Your task to perform on an android device: uninstall "Pluto TV - Live TV and Movies" Image 0: 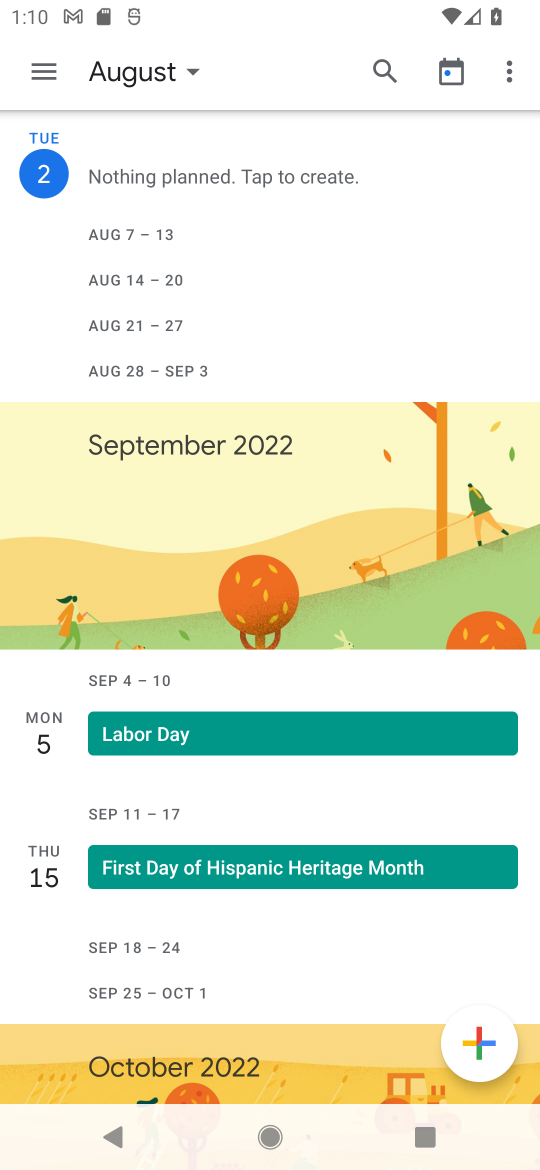
Step 0: press home button
Your task to perform on an android device: uninstall "Pluto TV - Live TV and Movies" Image 1: 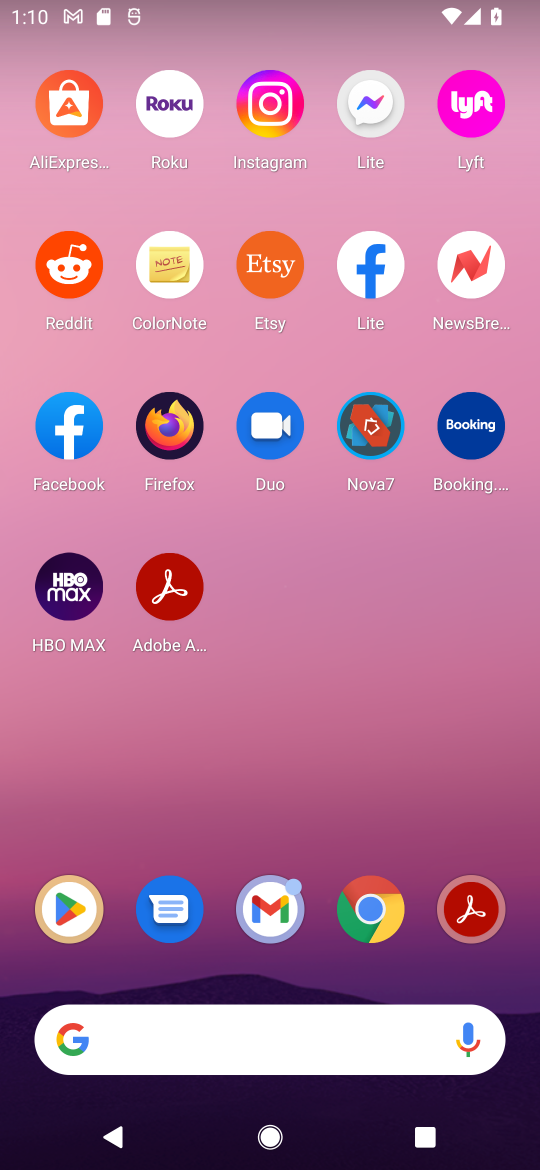
Step 1: click (68, 902)
Your task to perform on an android device: uninstall "Pluto TV - Live TV and Movies" Image 2: 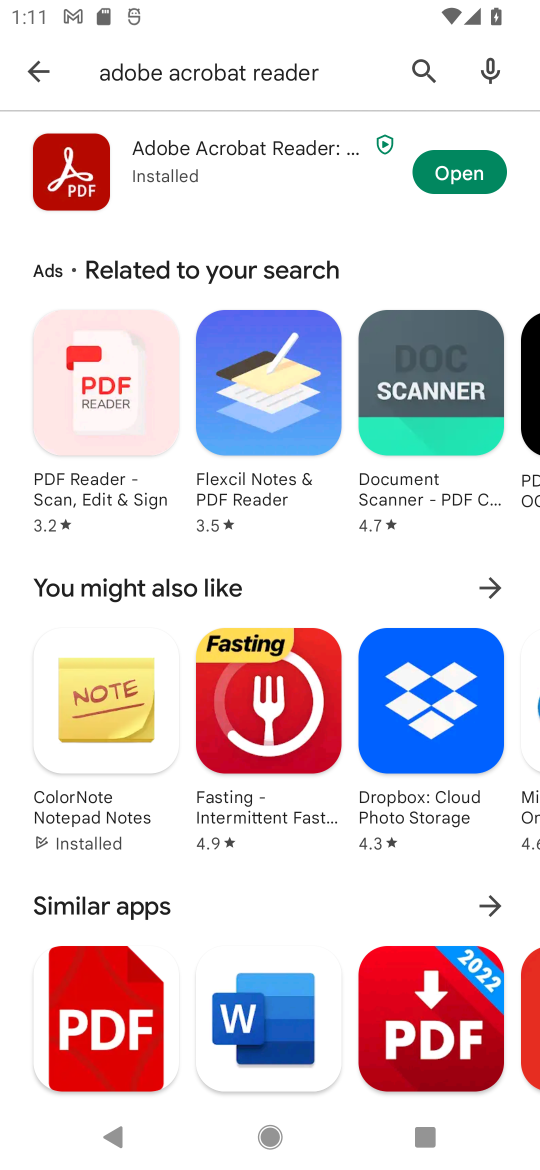
Step 2: click (419, 66)
Your task to perform on an android device: uninstall "Pluto TV - Live TV and Movies" Image 3: 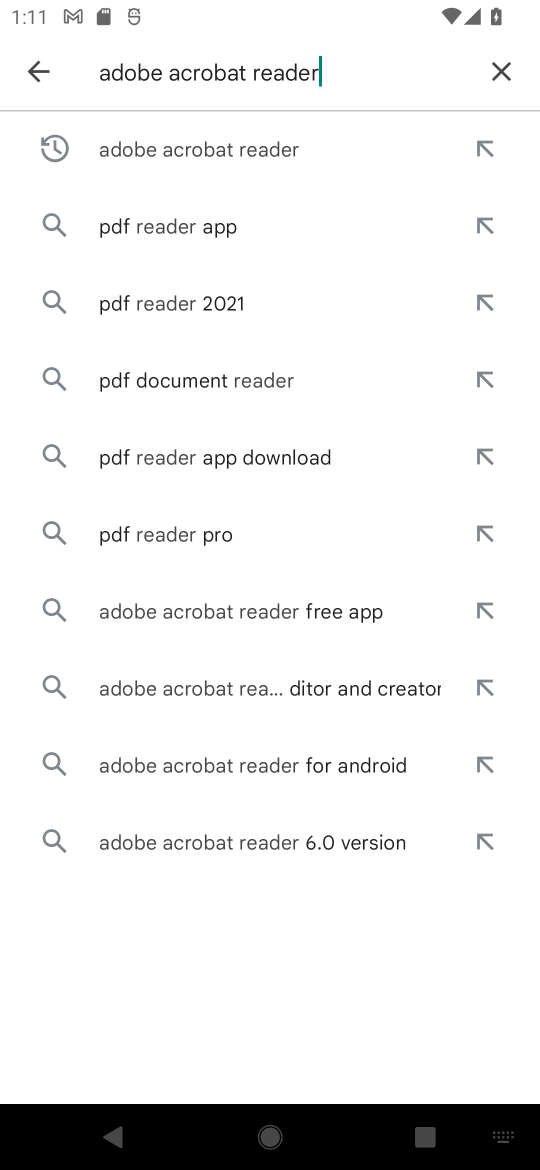
Step 3: click (497, 68)
Your task to perform on an android device: uninstall "Pluto TV - Live TV and Movies" Image 4: 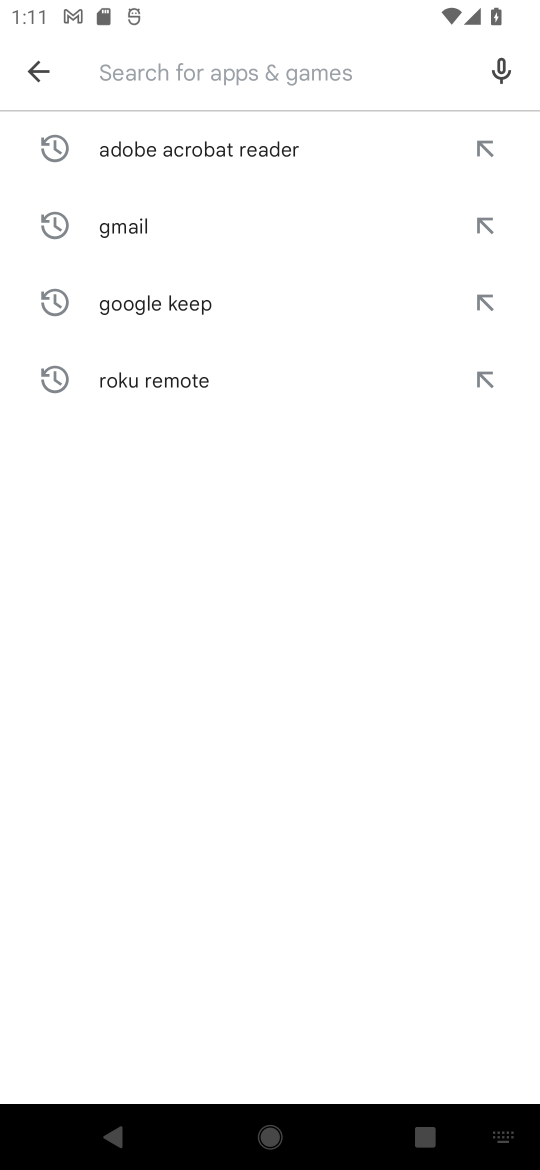
Step 4: type "Pluto TV - Live TV and Movies"
Your task to perform on an android device: uninstall "Pluto TV - Live TV and Movies" Image 5: 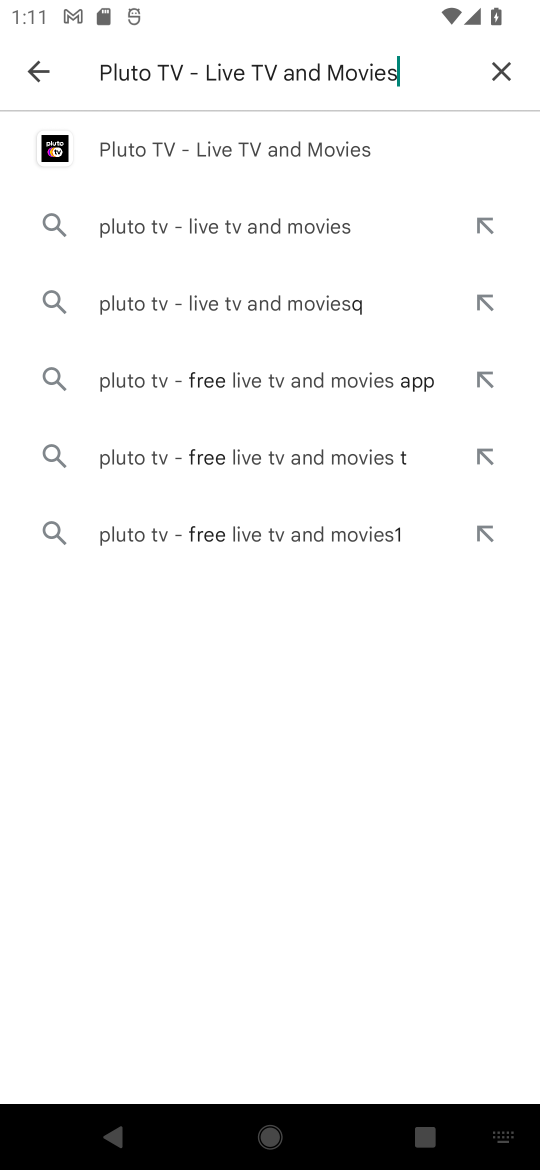
Step 5: click (154, 146)
Your task to perform on an android device: uninstall "Pluto TV - Live TV and Movies" Image 6: 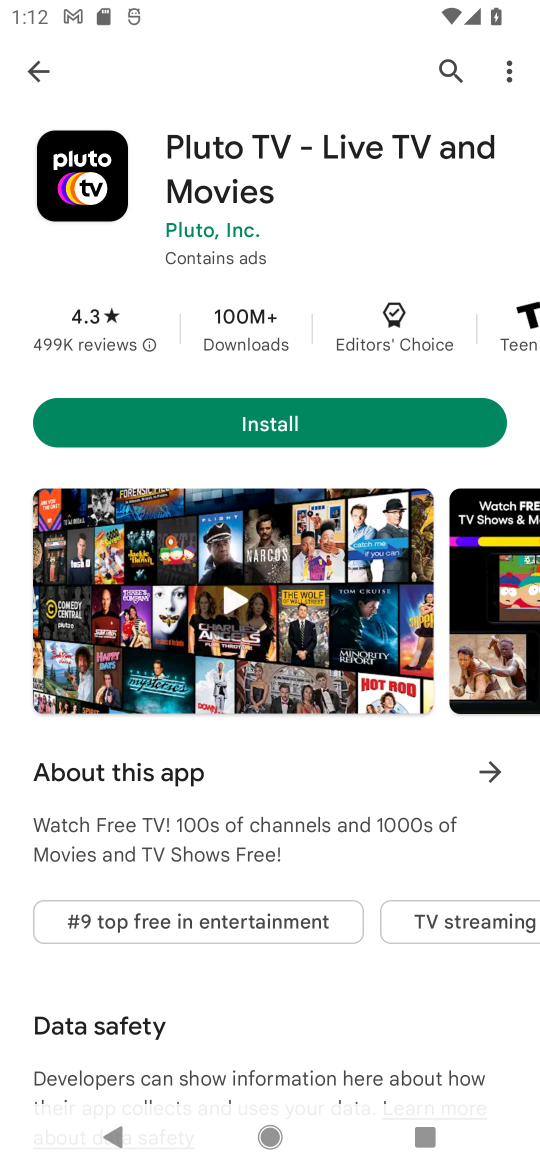
Step 6: task complete